Your task to perform on an android device: Open Chrome and go to settings Image 0: 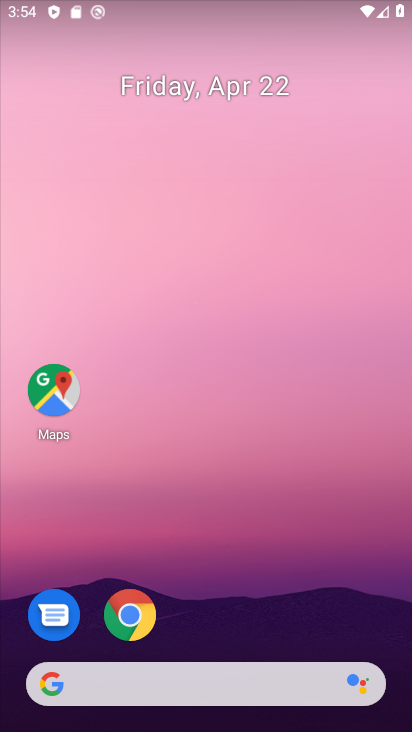
Step 0: click (133, 634)
Your task to perform on an android device: Open Chrome and go to settings Image 1: 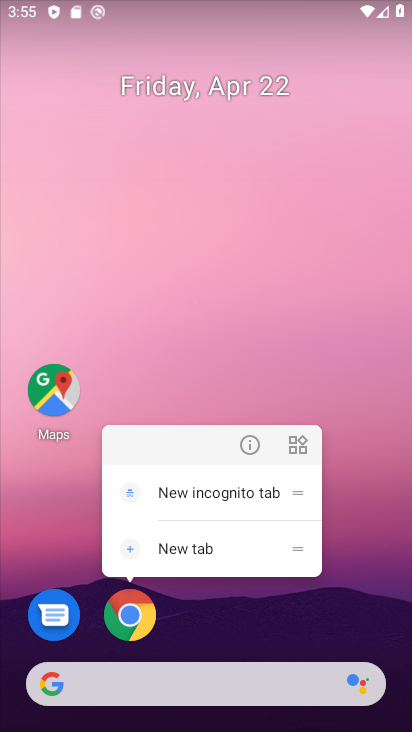
Step 1: click (133, 634)
Your task to perform on an android device: Open Chrome and go to settings Image 2: 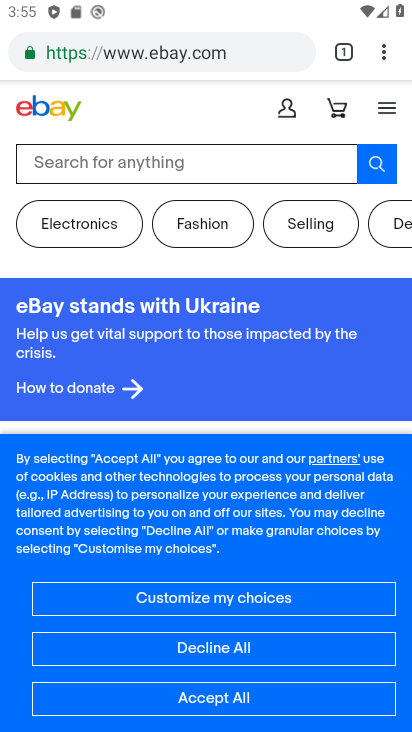
Step 2: task complete